Your task to perform on an android device: turn off translation in the chrome app Image 0: 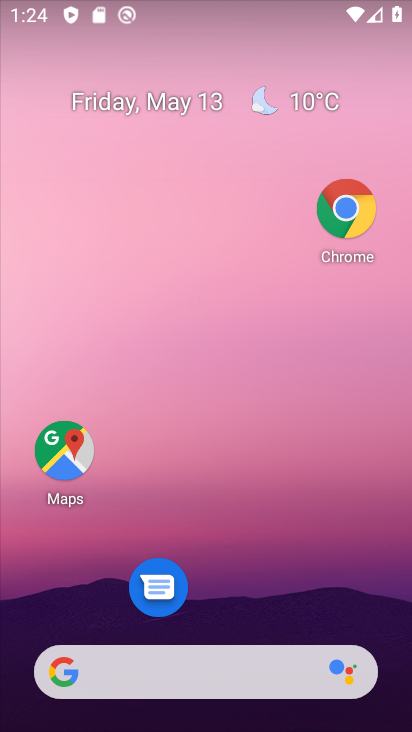
Step 0: click (348, 209)
Your task to perform on an android device: turn off translation in the chrome app Image 1: 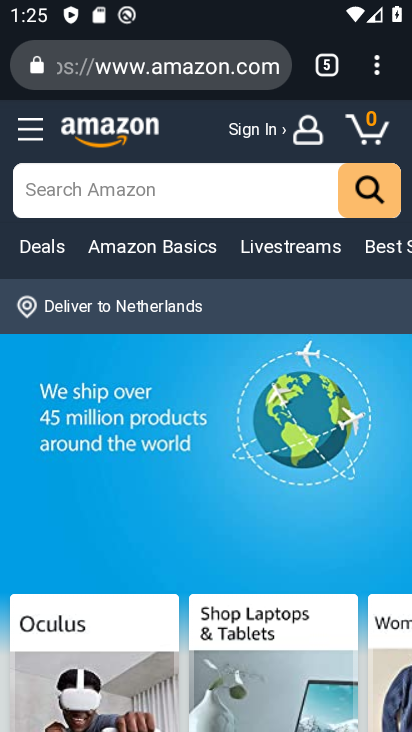
Step 1: drag from (379, 57) to (122, 635)
Your task to perform on an android device: turn off translation in the chrome app Image 2: 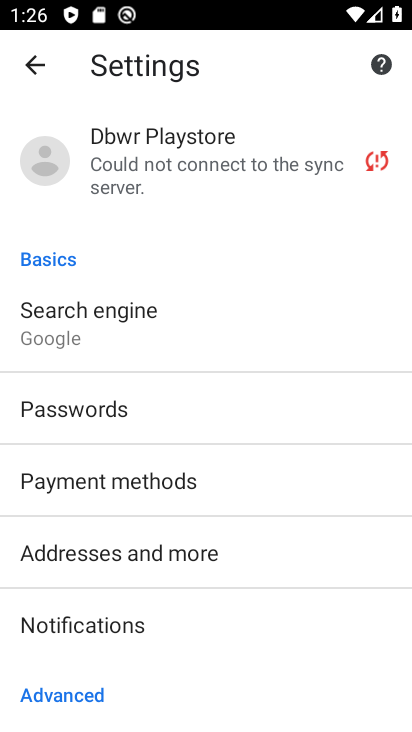
Step 2: drag from (167, 602) to (267, 117)
Your task to perform on an android device: turn off translation in the chrome app Image 3: 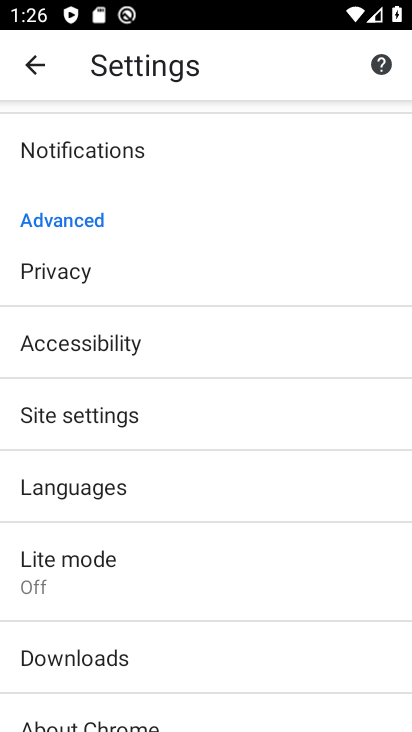
Step 3: click (175, 482)
Your task to perform on an android device: turn off translation in the chrome app Image 4: 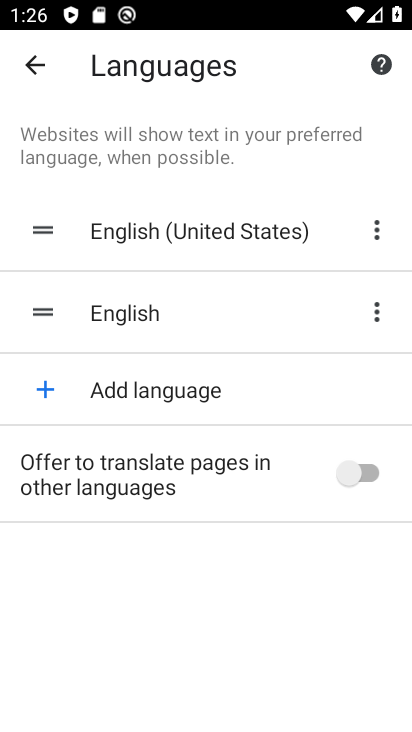
Step 4: task complete